Your task to perform on an android device: Turn off the flashlight Image 0: 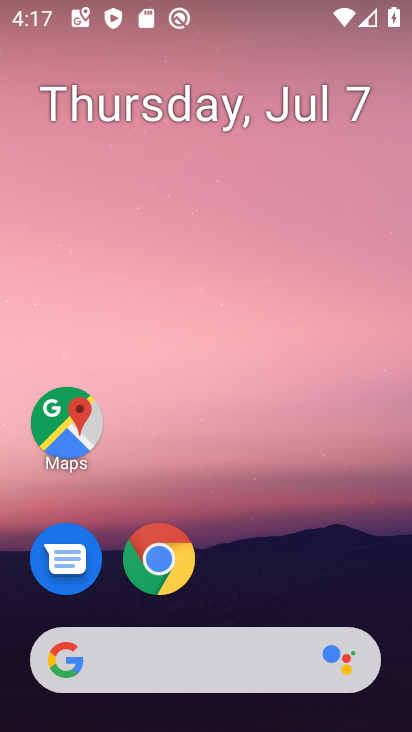
Step 0: drag from (264, 497) to (291, 6)
Your task to perform on an android device: Turn off the flashlight Image 1: 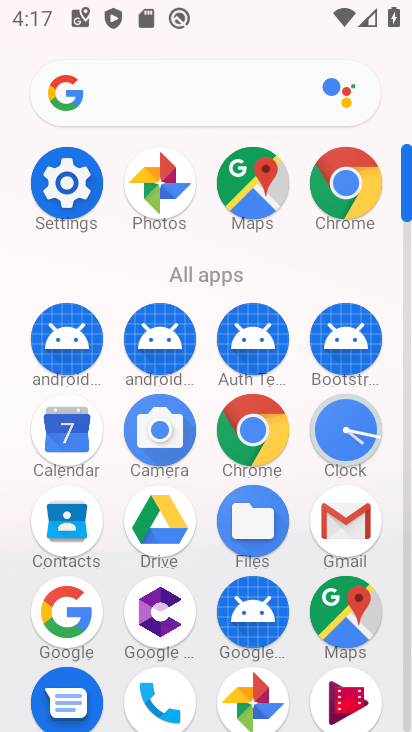
Step 1: click (66, 179)
Your task to perform on an android device: Turn off the flashlight Image 2: 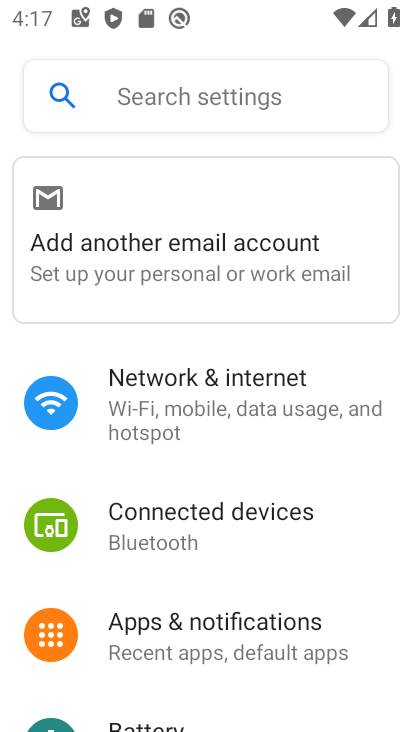
Step 2: click (201, 96)
Your task to perform on an android device: Turn off the flashlight Image 3: 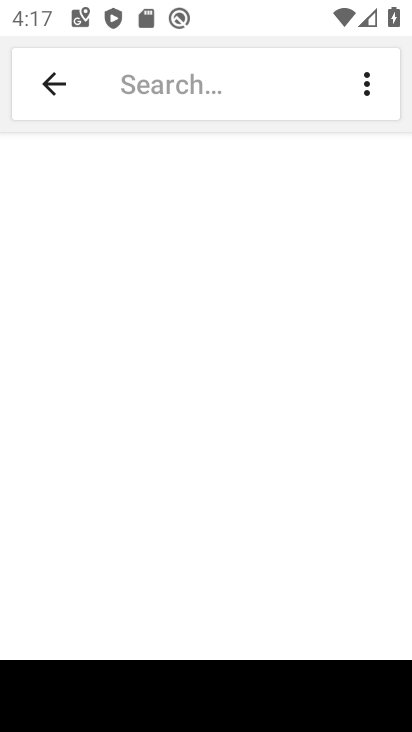
Step 3: type "flashlight"
Your task to perform on an android device: Turn off the flashlight Image 4: 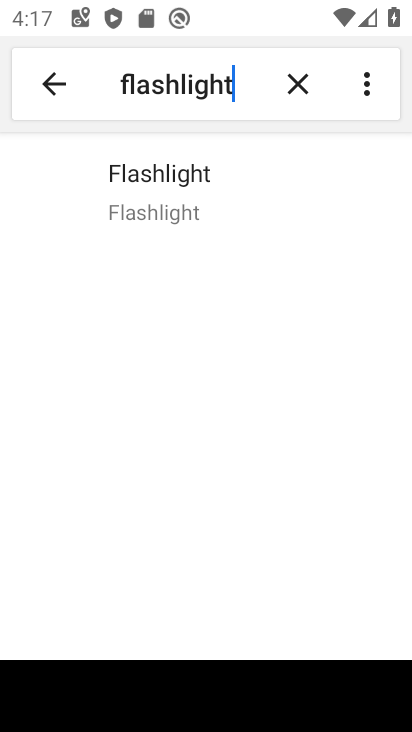
Step 4: click (210, 177)
Your task to perform on an android device: Turn off the flashlight Image 5: 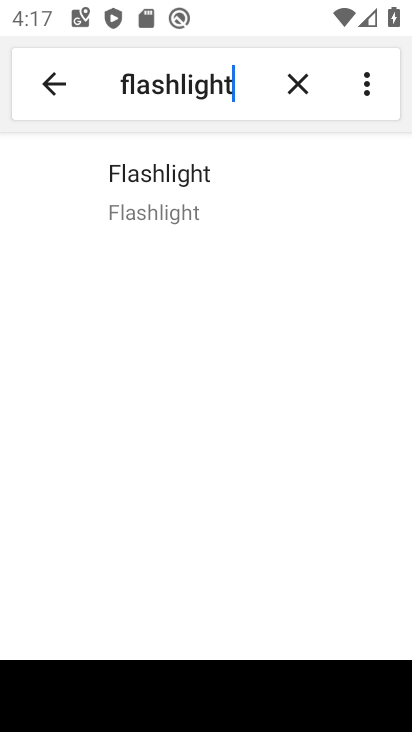
Step 5: task complete